Your task to perform on an android device: Go to display settings Image 0: 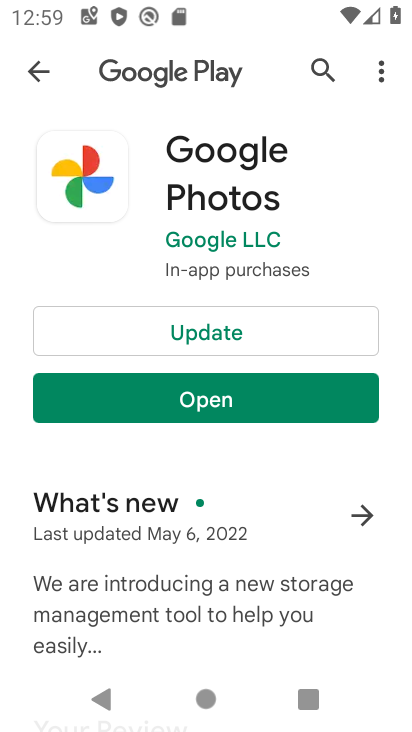
Step 0: press home button
Your task to perform on an android device: Go to display settings Image 1: 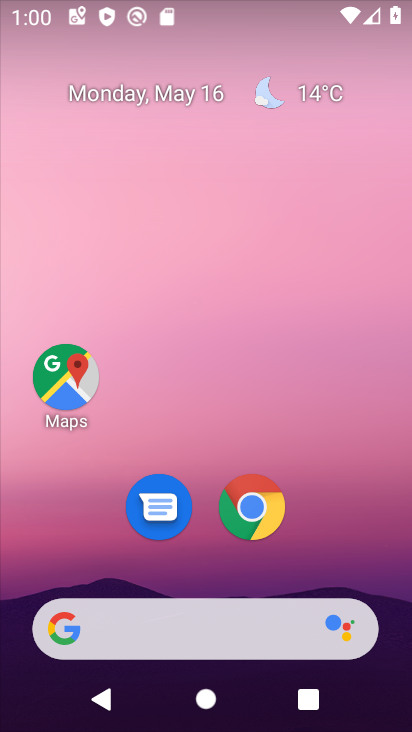
Step 1: drag from (15, 631) to (392, 100)
Your task to perform on an android device: Go to display settings Image 2: 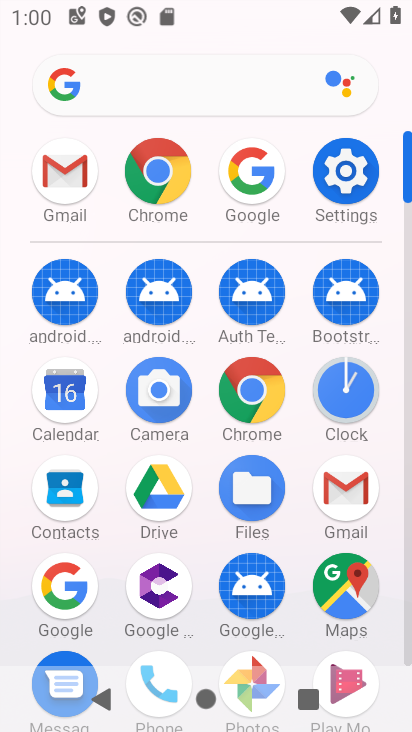
Step 2: click (329, 188)
Your task to perform on an android device: Go to display settings Image 3: 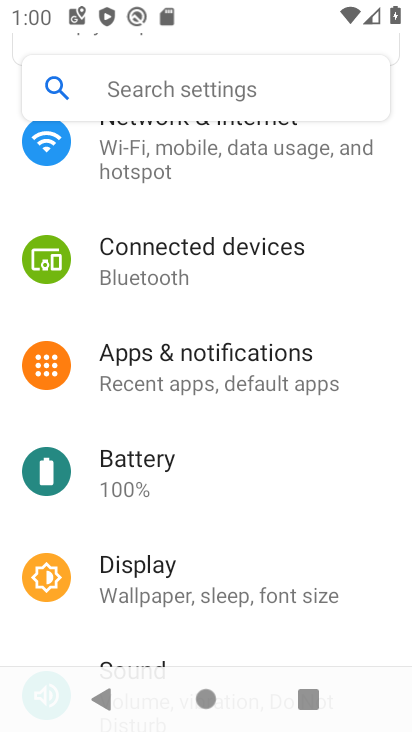
Step 3: drag from (196, 162) to (135, 536)
Your task to perform on an android device: Go to display settings Image 4: 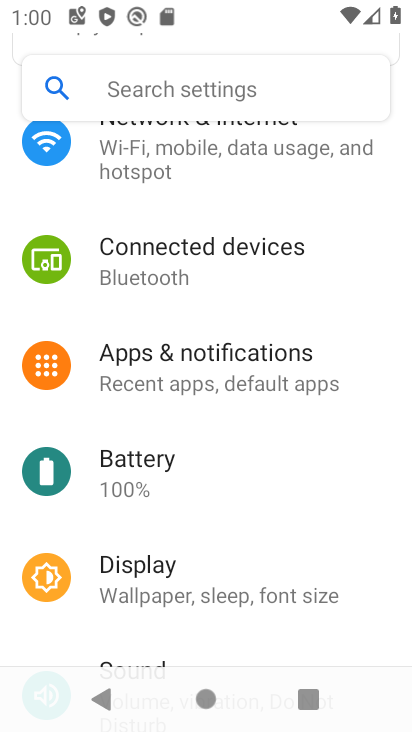
Step 4: drag from (255, 110) to (154, 523)
Your task to perform on an android device: Go to display settings Image 5: 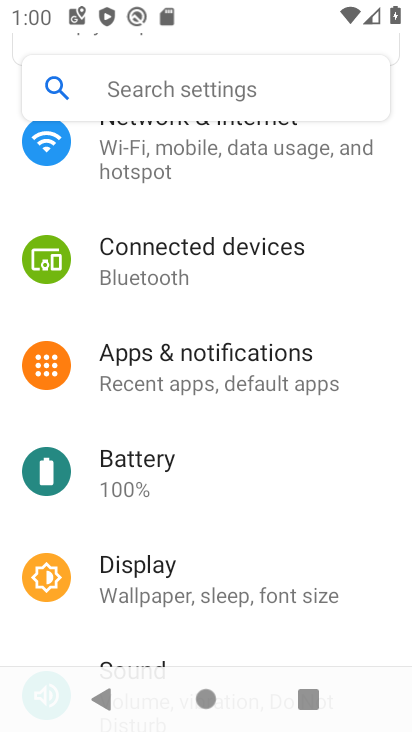
Step 5: drag from (132, 567) to (236, 273)
Your task to perform on an android device: Go to display settings Image 6: 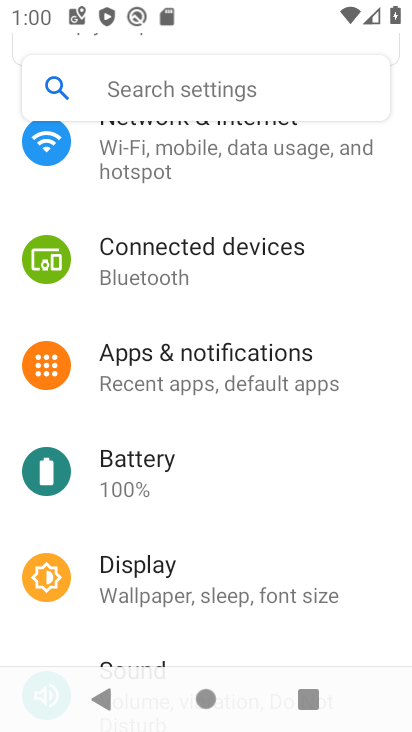
Step 6: click (197, 591)
Your task to perform on an android device: Go to display settings Image 7: 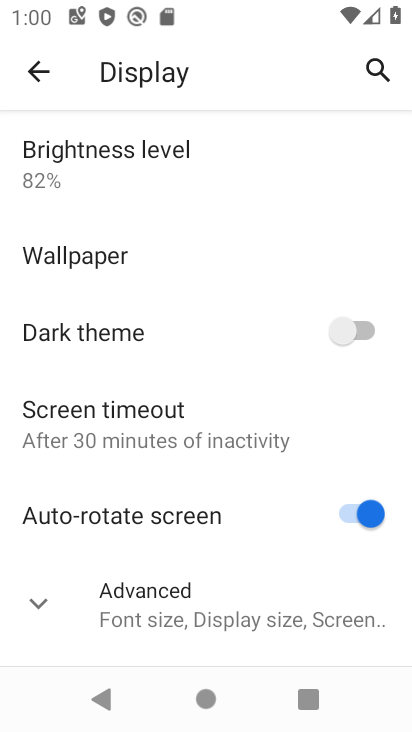
Step 7: task complete